Your task to perform on an android device: find snoozed emails in the gmail app Image 0: 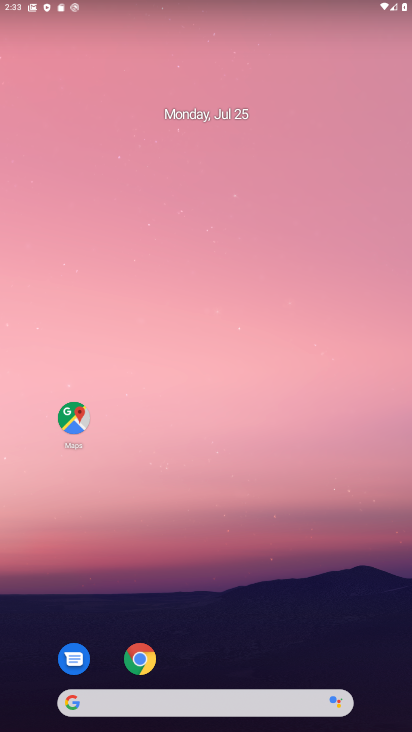
Step 0: drag from (208, 368) to (208, 65)
Your task to perform on an android device: find snoozed emails in the gmail app Image 1: 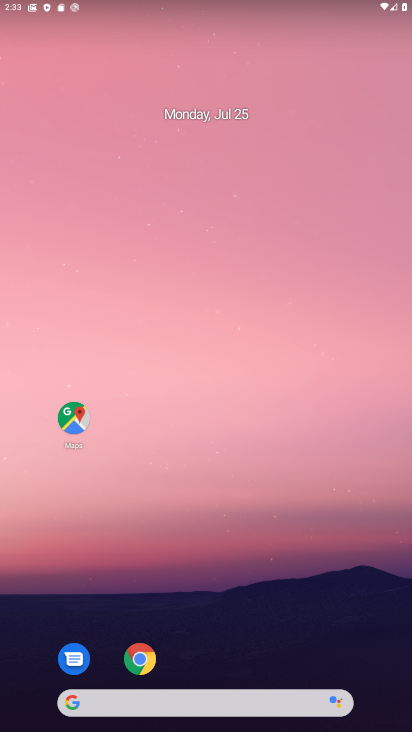
Step 1: drag from (242, 655) to (279, 182)
Your task to perform on an android device: find snoozed emails in the gmail app Image 2: 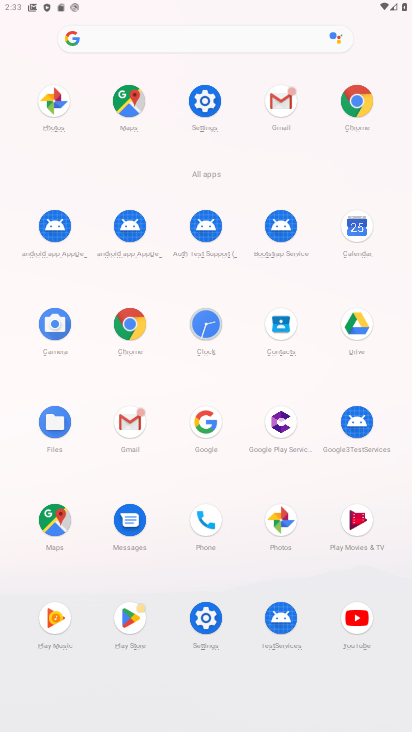
Step 2: click (284, 111)
Your task to perform on an android device: find snoozed emails in the gmail app Image 3: 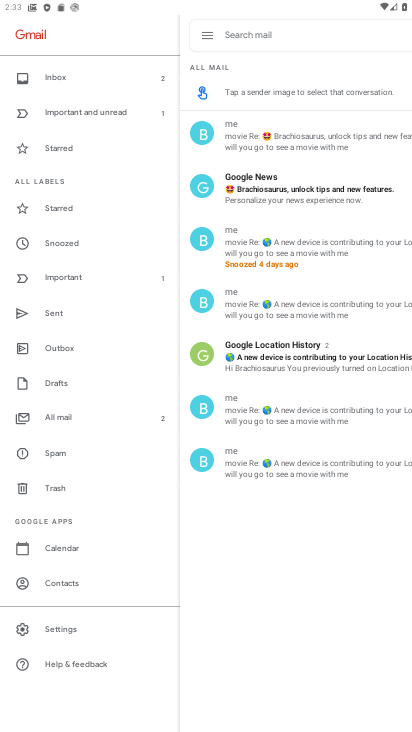
Step 3: click (70, 245)
Your task to perform on an android device: find snoozed emails in the gmail app Image 4: 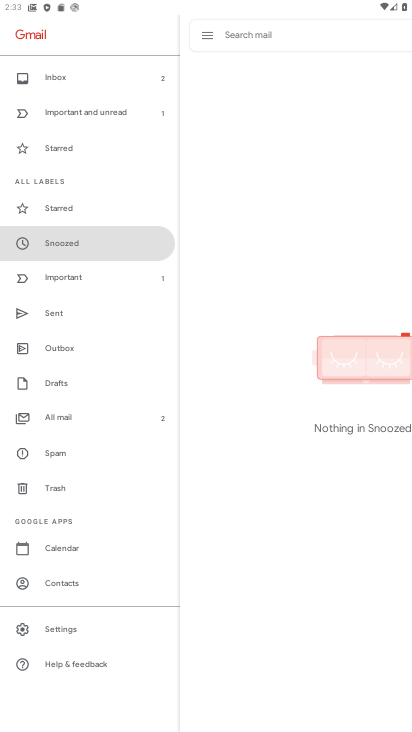
Step 4: task complete